Your task to perform on an android device: Open Chrome and go to settings Image 0: 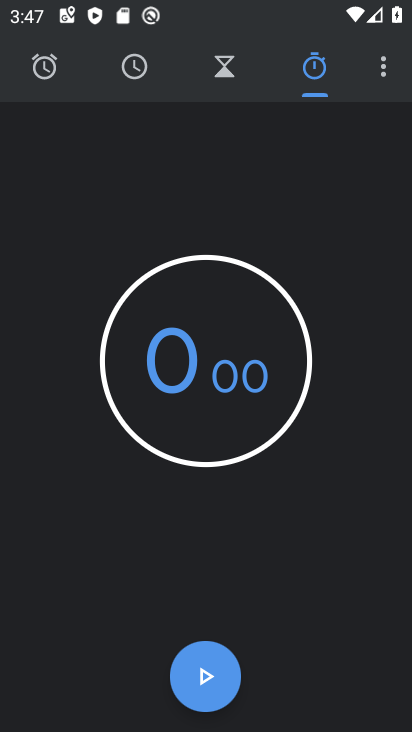
Step 0: press home button
Your task to perform on an android device: Open Chrome and go to settings Image 1: 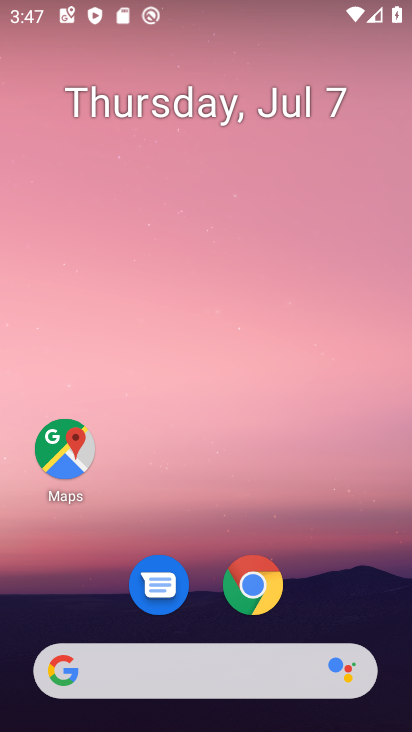
Step 1: click (266, 583)
Your task to perform on an android device: Open Chrome and go to settings Image 2: 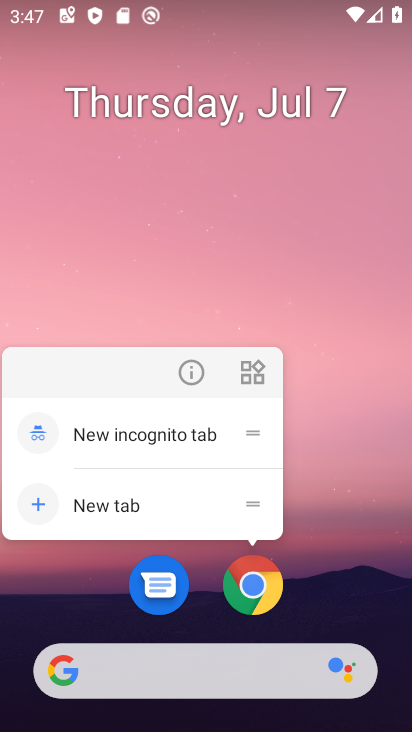
Step 2: click (265, 575)
Your task to perform on an android device: Open Chrome and go to settings Image 3: 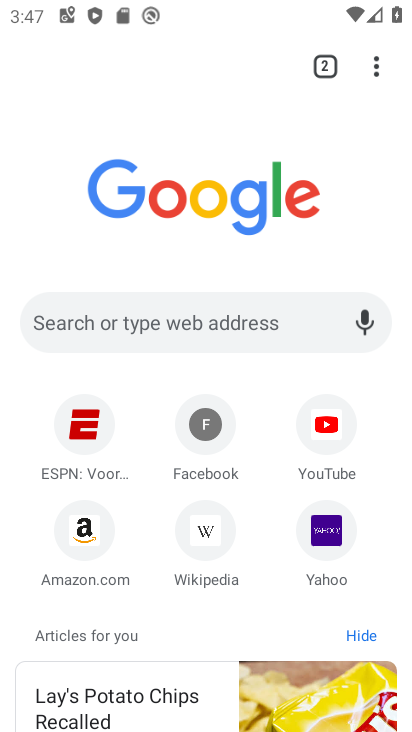
Step 3: click (374, 59)
Your task to perform on an android device: Open Chrome and go to settings Image 4: 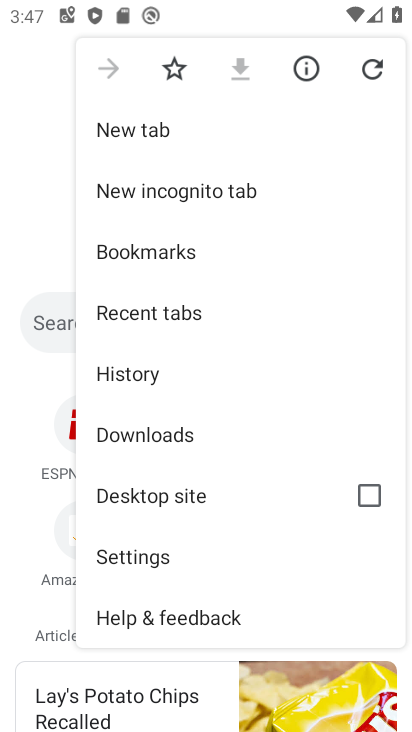
Step 4: click (160, 547)
Your task to perform on an android device: Open Chrome and go to settings Image 5: 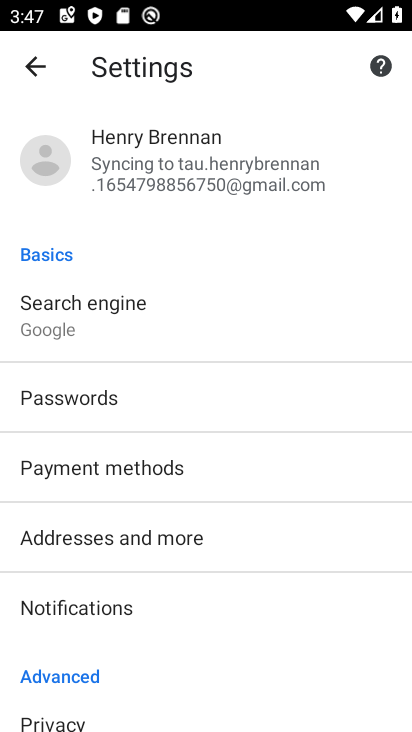
Step 5: task complete